Your task to perform on an android device: toggle notifications settings in the gmail app Image 0: 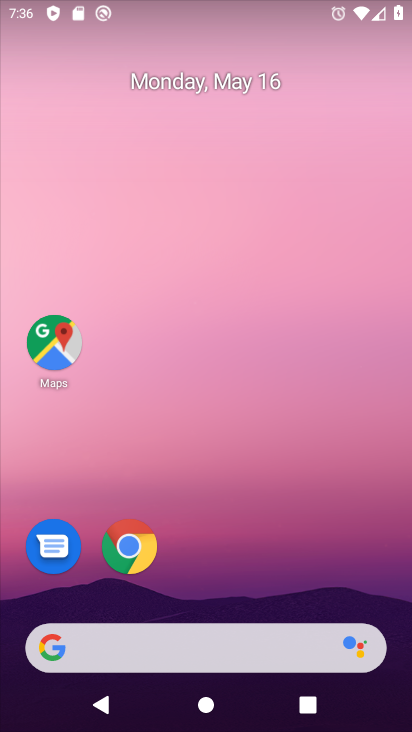
Step 0: drag from (321, 553) to (331, 21)
Your task to perform on an android device: toggle notifications settings in the gmail app Image 1: 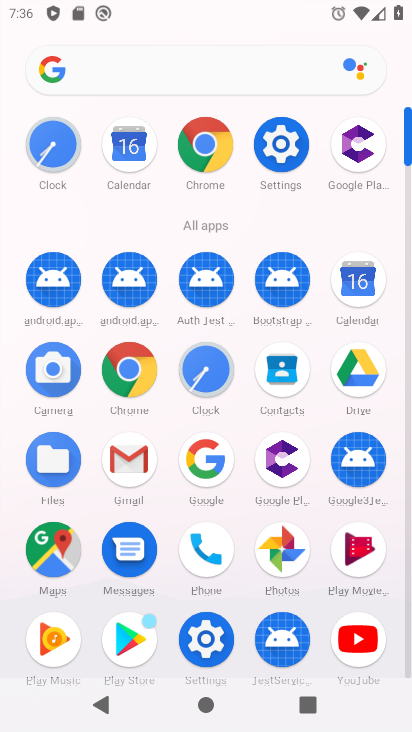
Step 1: click (115, 461)
Your task to perform on an android device: toggle notifications settings in the gmail app Image 2: 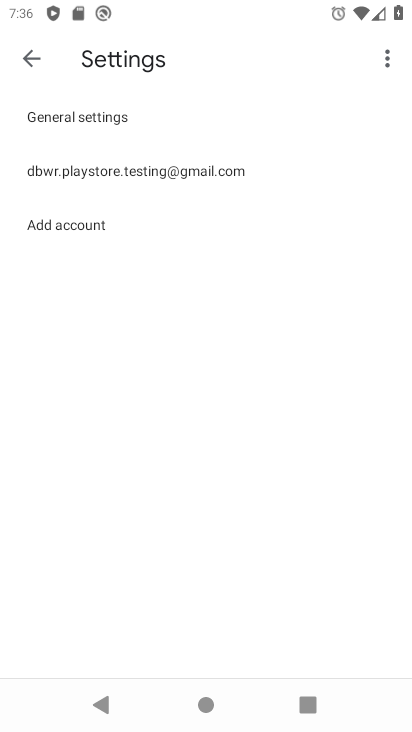
Step 2: click (79, 124)
Your task to perform on an android device: toggle notifications settings in the gmail app Image 3: 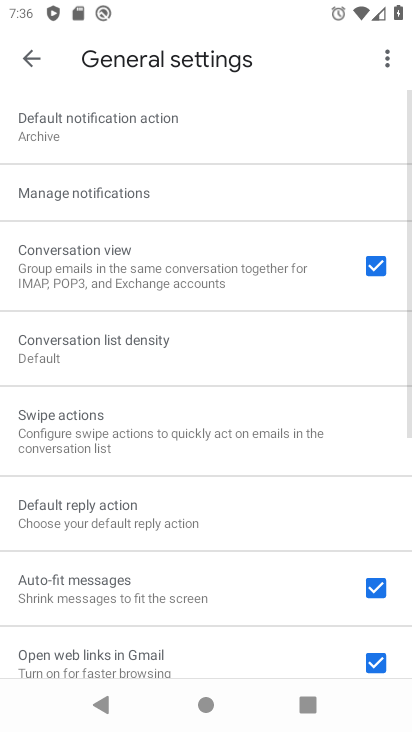
Step 3: click (145, 205)
Your task to perform on an android device: toggle notifications settings in the gmail app Image 4: 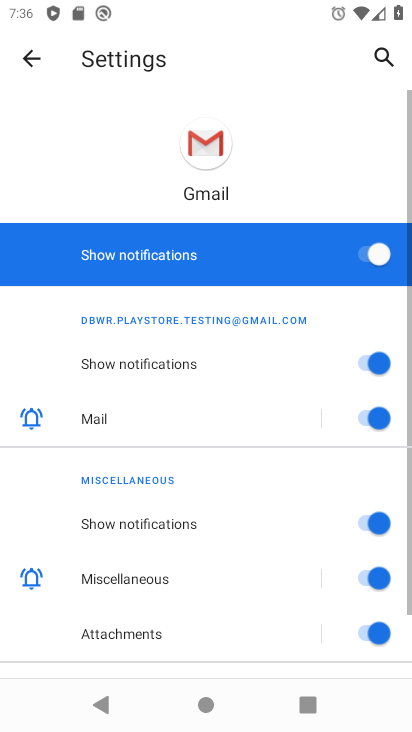
Step 4: click (363, 263)
Your task to perform on an android device: toggle notifications settings in the gmail app Image 5: 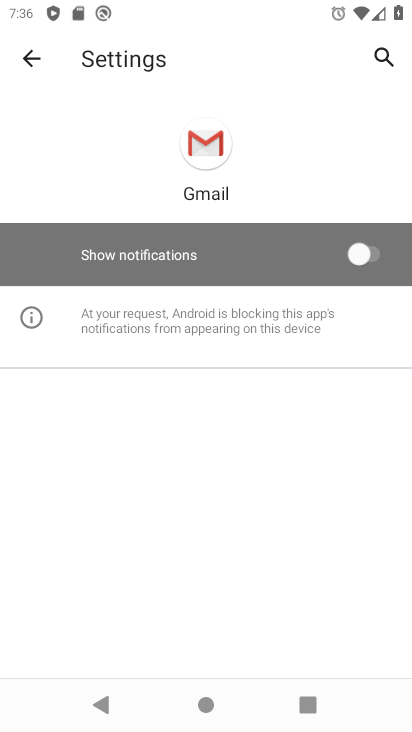
Step 5: task complete